Your task to perform on an android device: turn off smart reply in the gmail app Image 0: 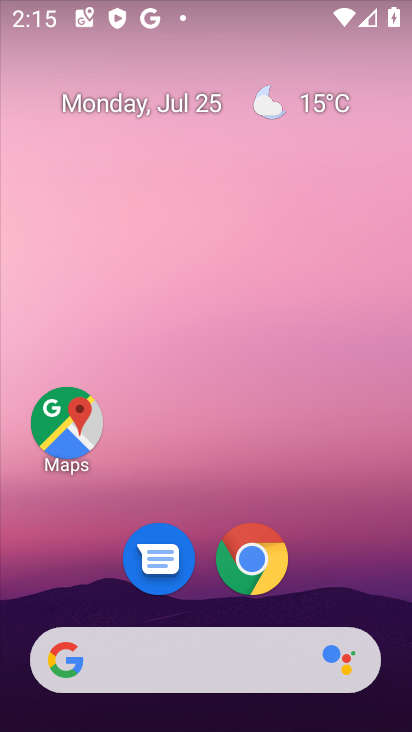
Step 0: drag from (115, 511) to (232, 8)
Your task to perform on an android device: turn off smart reply in the gmail app Image 1: 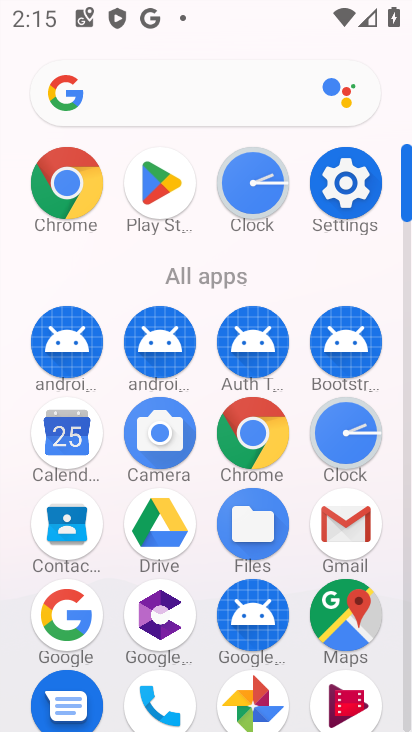
Step 1: click (343, 526)
Your task to perform on an android device: turn off smart reply in the gmail app Image 2: 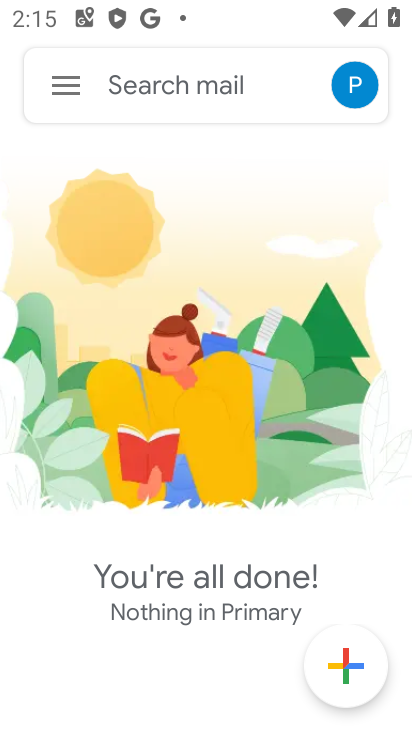
Step 2: click (65, 83)
Your task to perform on an android device: turn off smart reply in the gmail app Image 3: 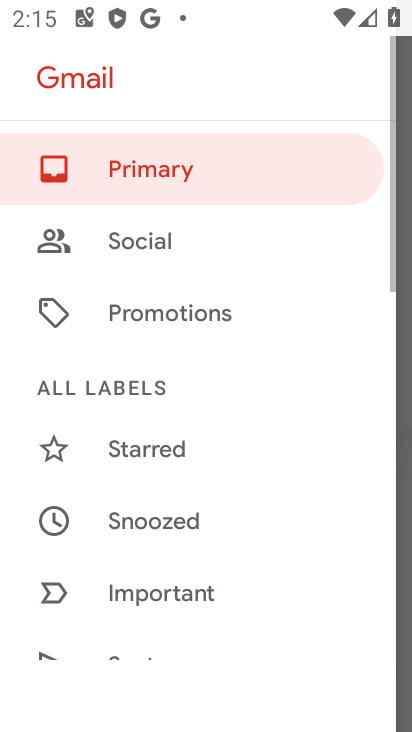
Step 3: drag from (166, 610) to (295, 39)
Your task to perform on an android device: turn off smart reply in the gmail app Image 4: 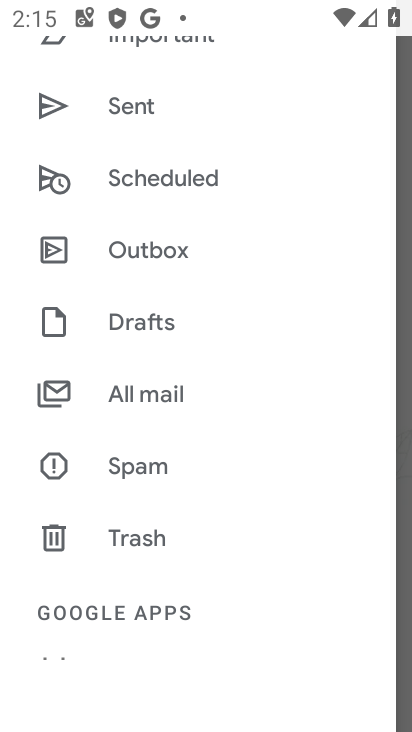
Step 4: drag from (168, 610) to (262, 34)
Your task to perform on an android device: turn off smart reply in the gmail app Image 5: 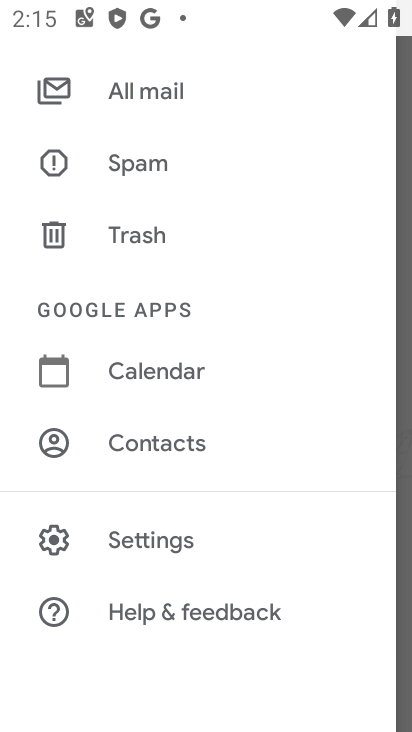
Step 5: click (146, 536)
Your task to perform on an android device: turn off smart reply in the gmail app Image 6: 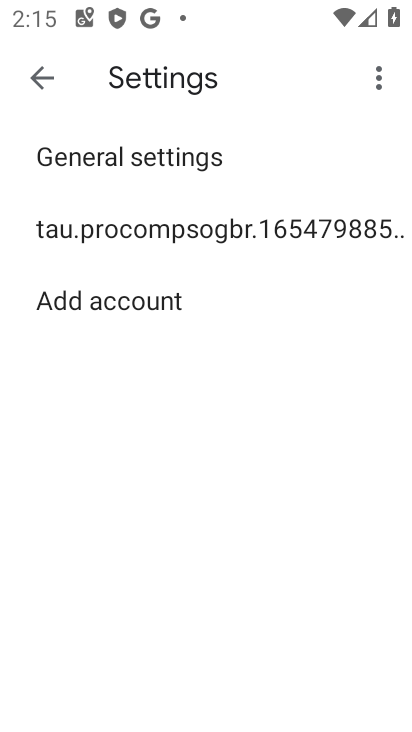
Step 6: click (171, 227)
Your task to perform on an android device: turn off smart reply in the gmail app Image 7: 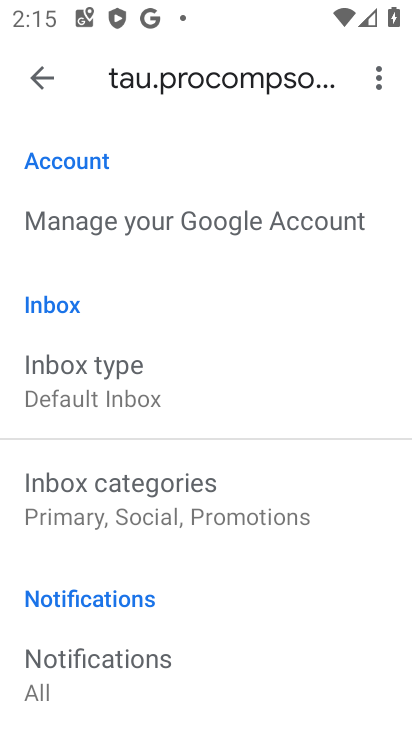
Step 7: drag from (159, 644) to (324, 13)
Your task to perform on an android device: turn off smart reply in the gmail app Image 8: 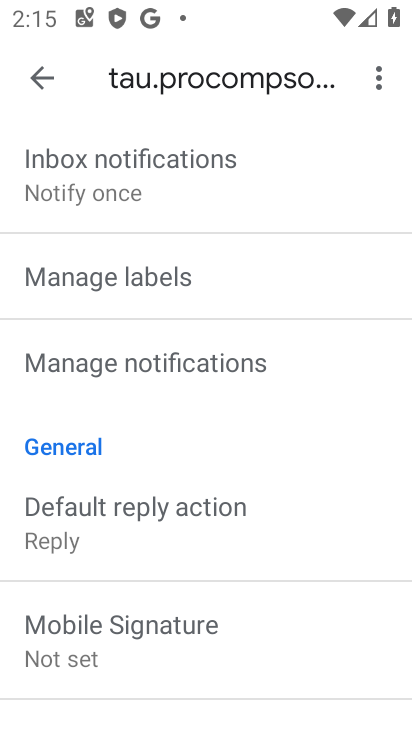
Step 8: drag from (158, 659) to (291, 147)
Your task to perform on an android device: turn off smart reply in the gmail app Image 9: 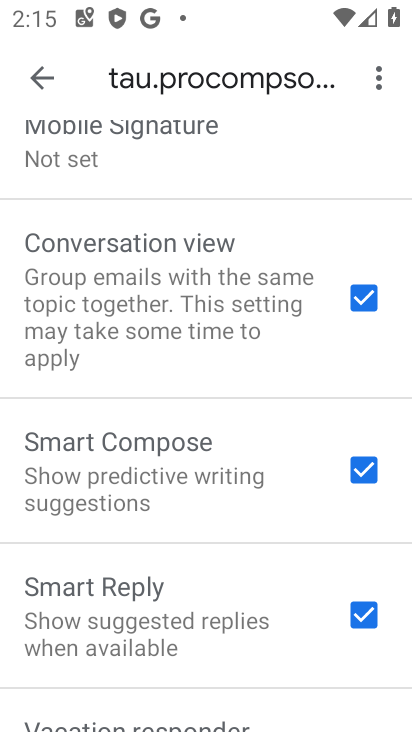
Step 9: click (366, 611)
Your task to perform on an android device: turn off smart reply in the gmail app Image 10: 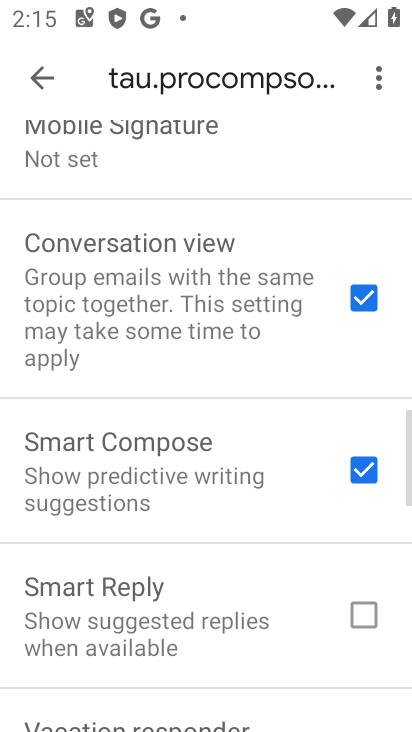
Step 10: task complete